Your task to perform on an android device: Show me the alarms in the clock app Image 0: 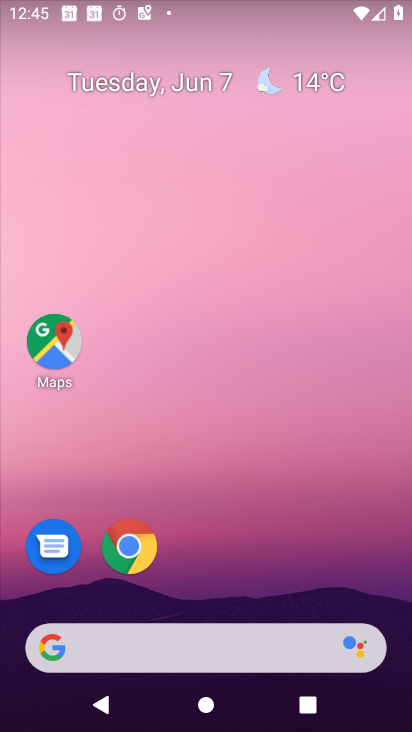
Step 0: drag from (236, 584) to (307, 213)
Your task to perform on an android device: Show me the alarms in the clock app Image 1: 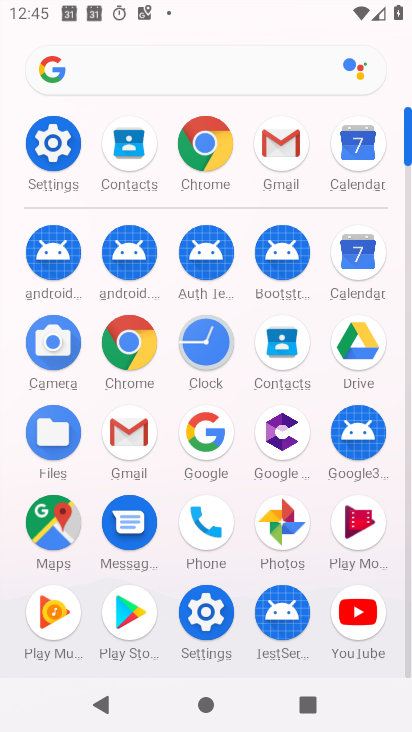
Step 1: click (207, 345)
Your task to perform on an android device: Show me the alarms in the clock app Image 2: 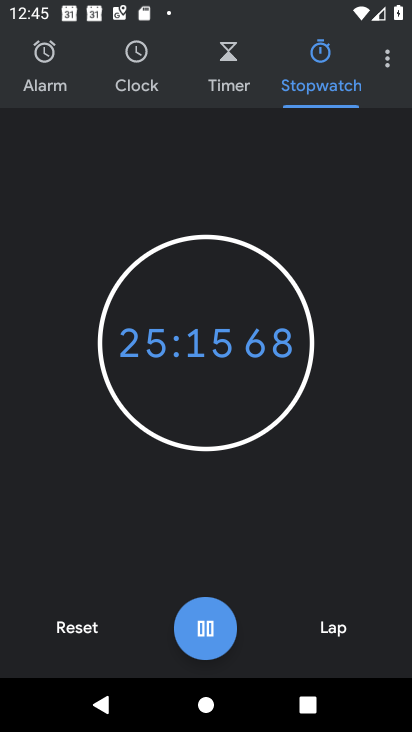
Step 2: click (79, 627)
Your task to perform on an android device: Show me the alarms in the clock app Image 3: 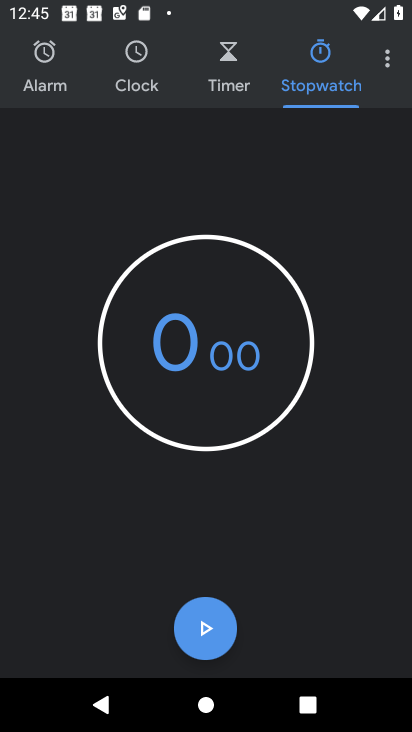
Step 3: click (223, 81)
Your task to perform on an android device: Show me the alarms in the clock app Image 4: 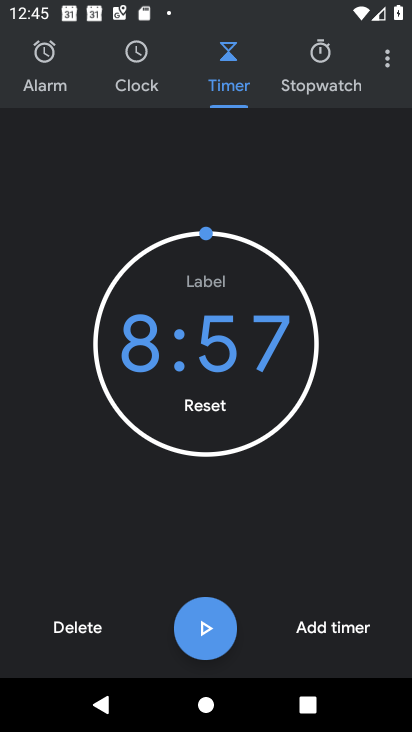
Step 4: click (48, 96)
Your task to perform on an android device: Show me the alarms in the clock app Image 5: 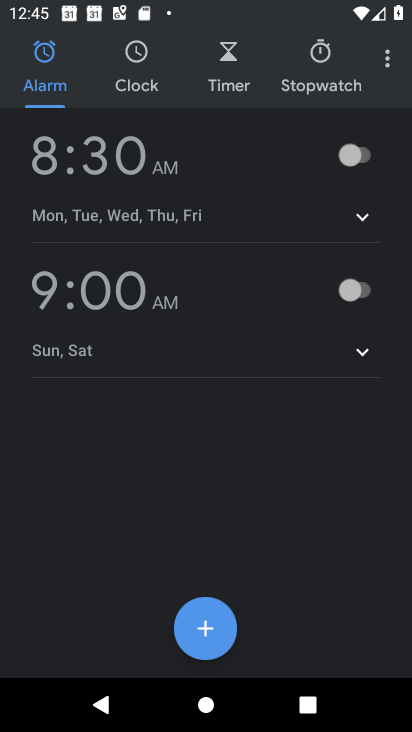
Step 5: task complete